Your task to perform on an android device: Open the stopwatch Image 0: 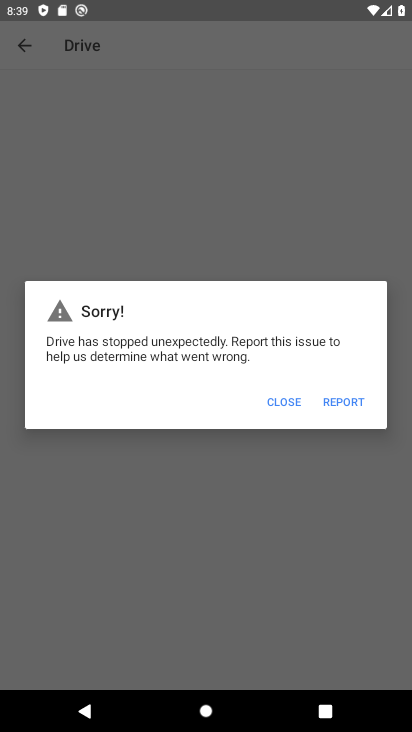
Step 0: press home button
Your task to perform on an android device: Open the stopwatch Image 1: 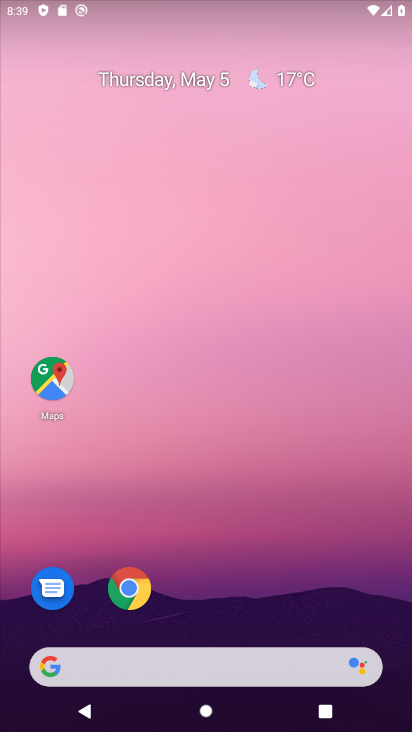
Step 1: drag from (247, 583) to (300, 237)
Your task to perform on an android device: Open the stopwatch Image 2: 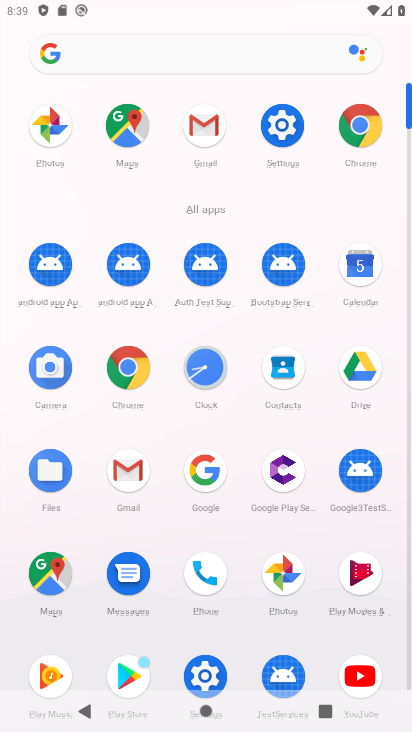
Step 2: click (200, 360)
Your task to perform on an android device: Open the stopwatch Image 3: 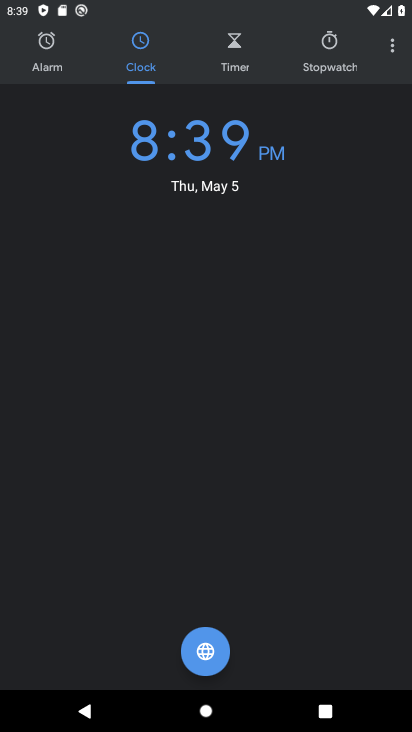
Step 3: click (329, 38)
Your task to perform on an android device: Open the stopwatch Image 4: 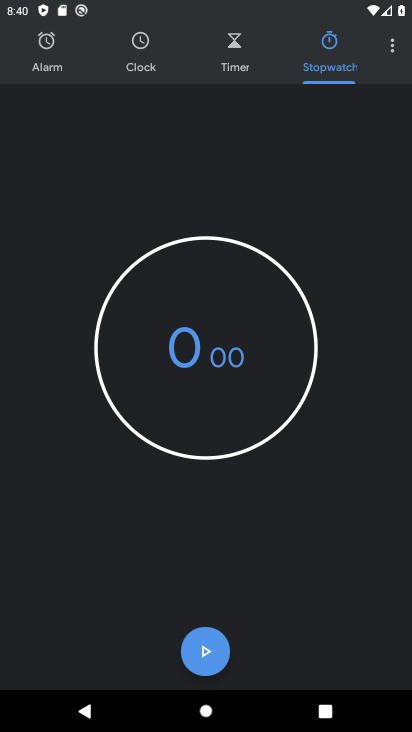
Step 4: task complete